Your task to perform on an android device: change the clock display to show seconds Image 0: 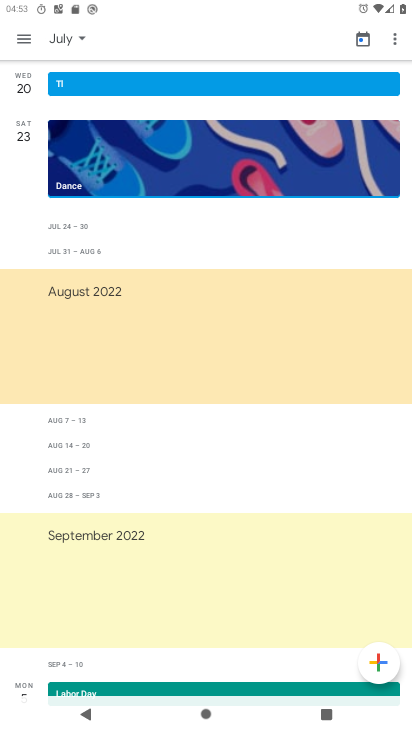
Step 0: press home button
Your task to perform on an android device: change the clock display to show seconds Image 1: 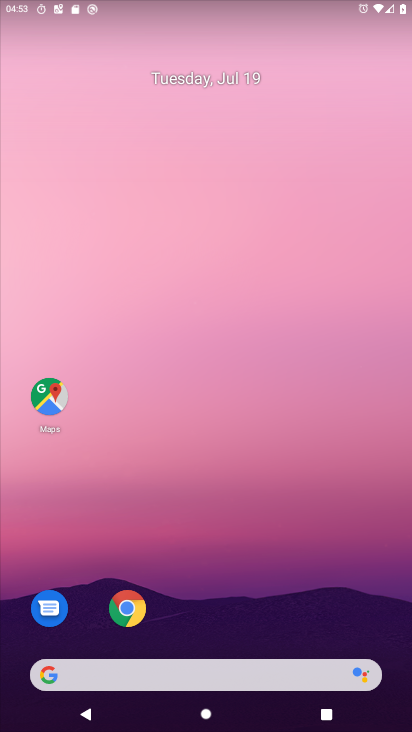
Step 1: drag from (192, 680) to (228, 12)
Your task to perform on an android device: change the clock display to show seconds Image 2: 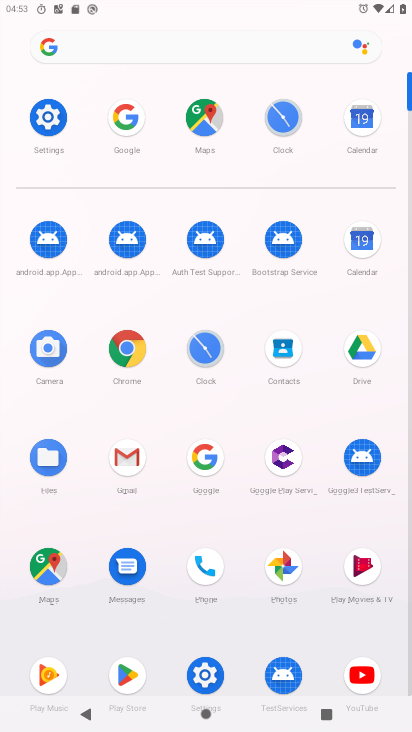
Step 2: click (283, 117)
Your task to perform on an android device: change the clock display to show seconds Image 3: 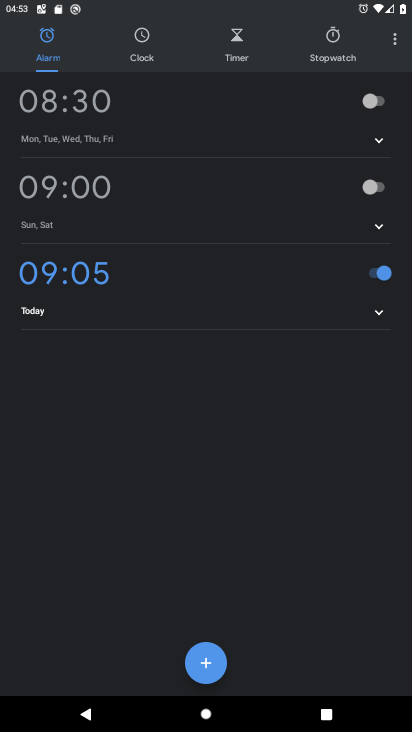
Step 3: click (396, 40)
Your task to perform on an android device: change the clock display to show seconds Image 4: 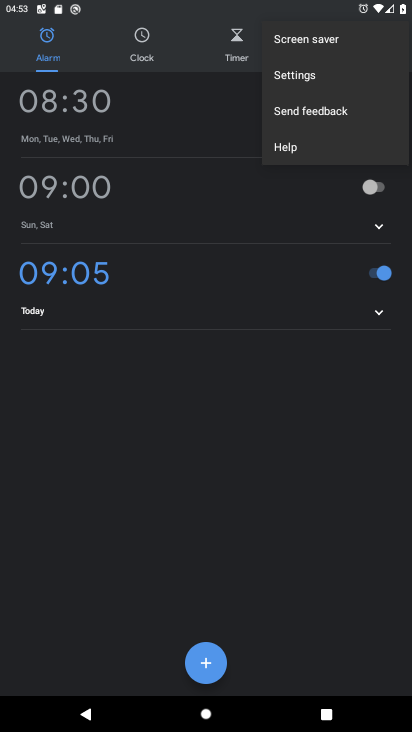
Step 4: click (312, 76)
Your task to perform on an android device: change the clock display to show seconds Image 5: 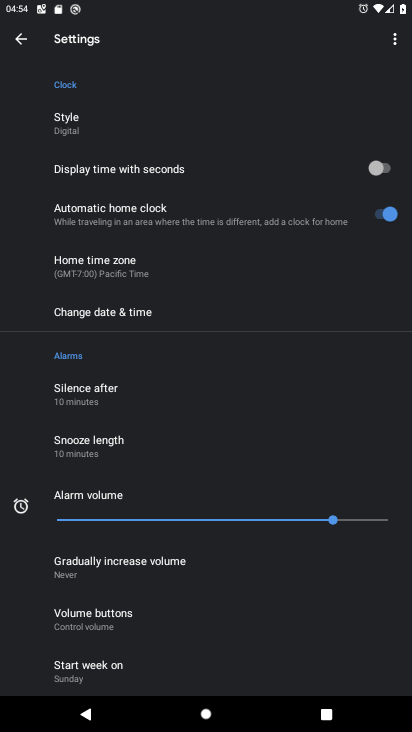
Step 5: click (378, 177)
Your task to perform on an android device: change the clock display to show seconds Image 6: 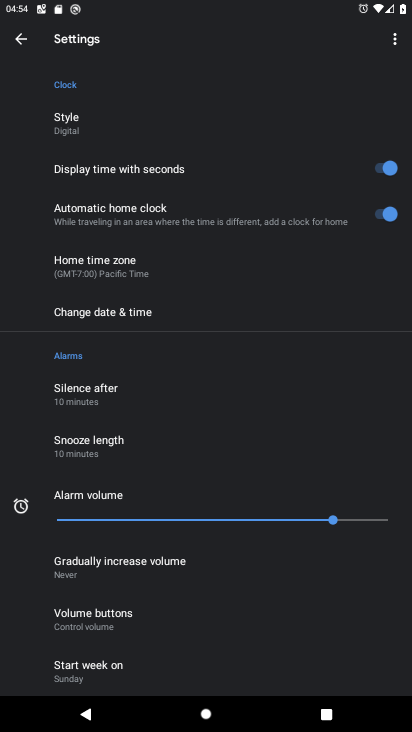
Step 6: task complete